Your task to perform on an android device: Open internet settings Image 0: 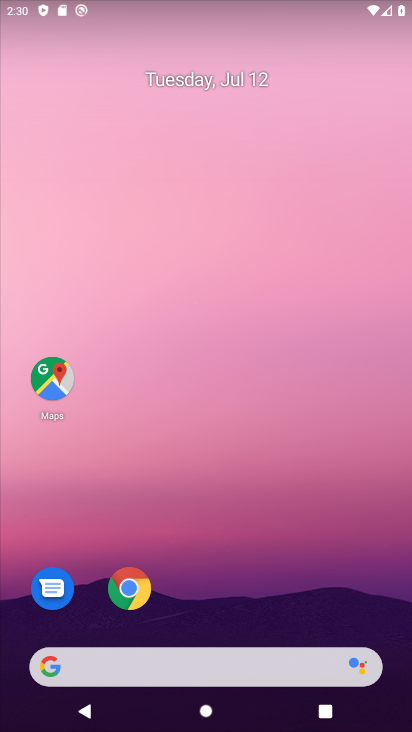
Step 0: drag from (233, 686) to (63, 43)
Your task to perform on an android device: Open internet settings Image 1: 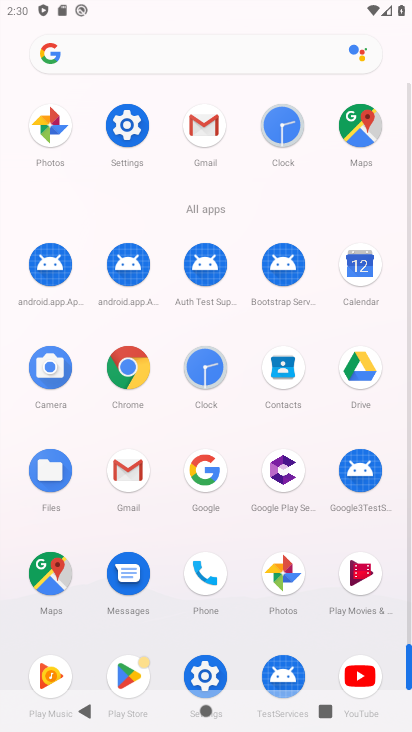
Step 1: drag from (216, 451) to (177, 321)
Your task to perform on an android device: Open internet settings Image 2: 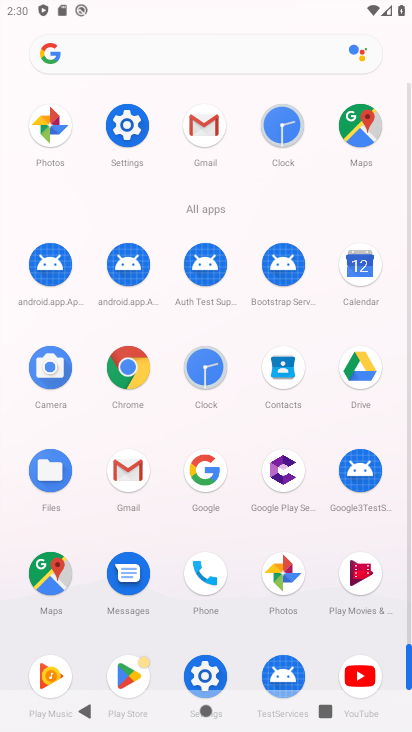
Step 2: click (126, 124)
Your task to perform on an android device: Open internet settings Image 3: 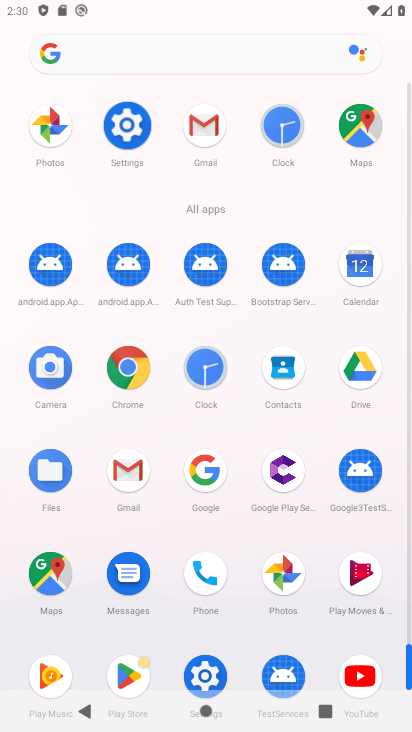
Step 3: click (126, 124)
Your task to perform on an android device: Open internet settings Image 4: 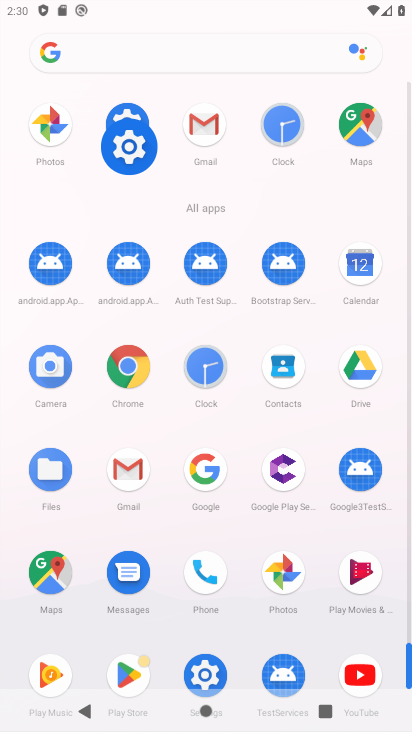
Step 4: click (126, 124)
Your task to perform on an android device: Open internet settings Image 5: 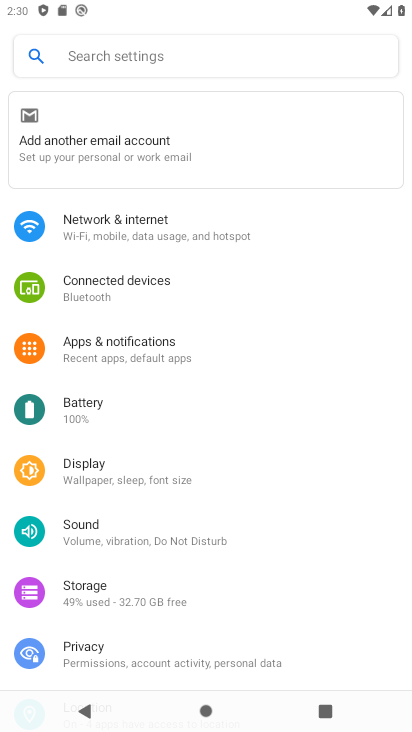
Step 5: click (129, 217)
Your task to perform on an android device: Open internet settings Image 6: 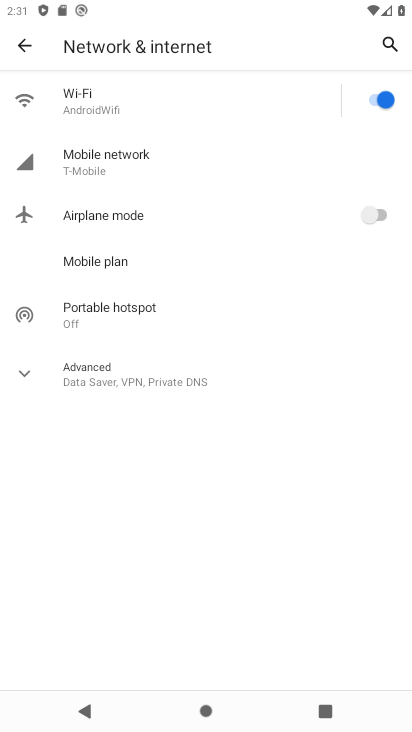
Step 6: task complete